Your task to perform on an android device: Show me popular videos on Youtube Image 0: 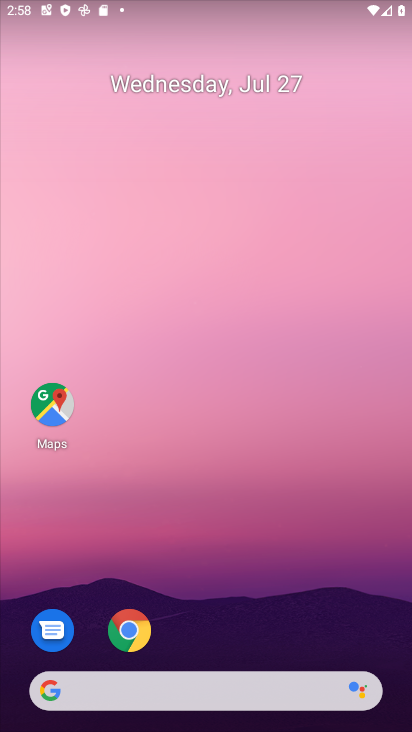
Step 0: drag from (395, 683) to (329, 38)
Your task to perform on an android device: Show me popular videos on Youtube Image 1: 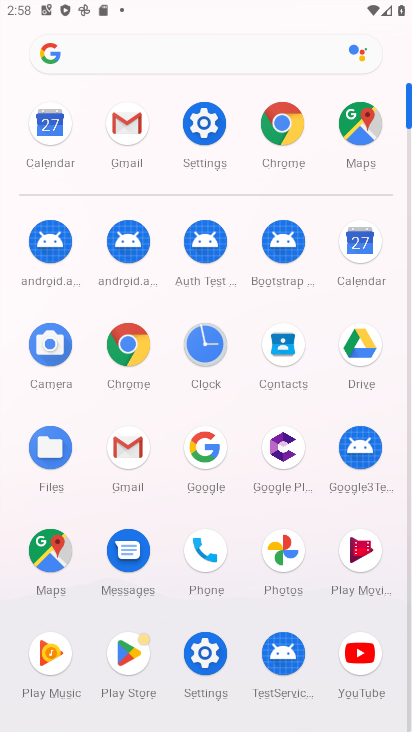
Step 1: click (344, 669)
Your task to perform on an android device: Show me popular videos on Youtube Image 2: 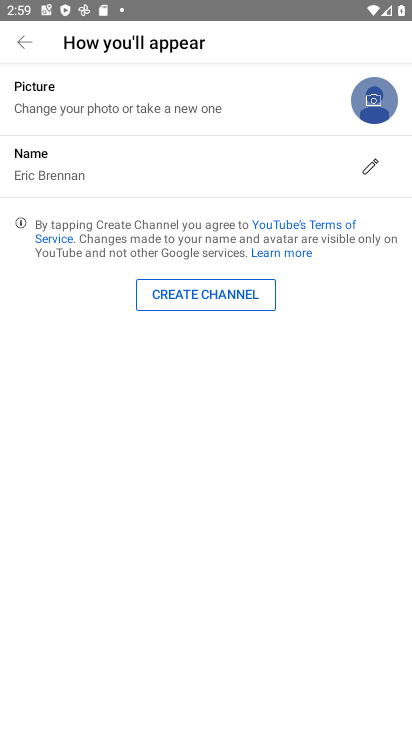
Step 2: press enter
Your task to perform on an android device: Show me popular videos on Youtube Image 3: 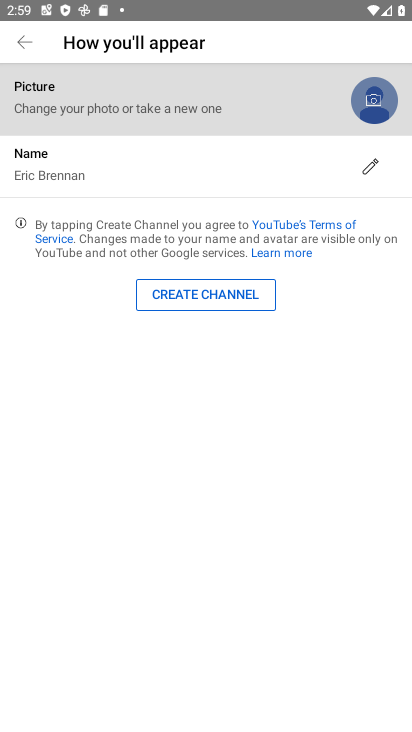
Step 3: press home button
Your task to perform on an android device: Show me popular videos on Youtube Image 4: 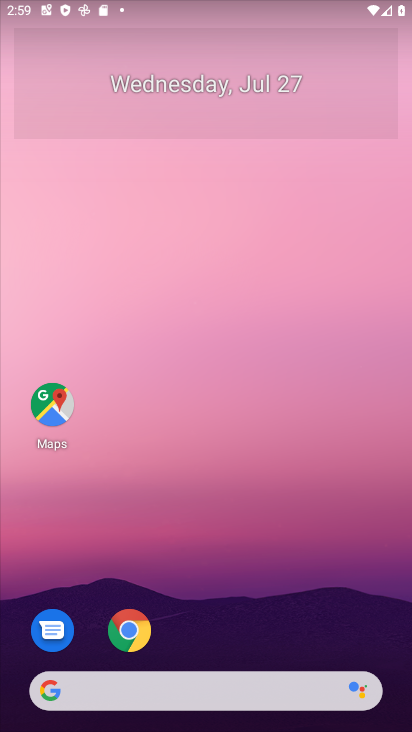
Step 4: drag from (391, 707) to (325, 107)
Your task to perform on an android device: Show me popular videos on Youtube Image 5: 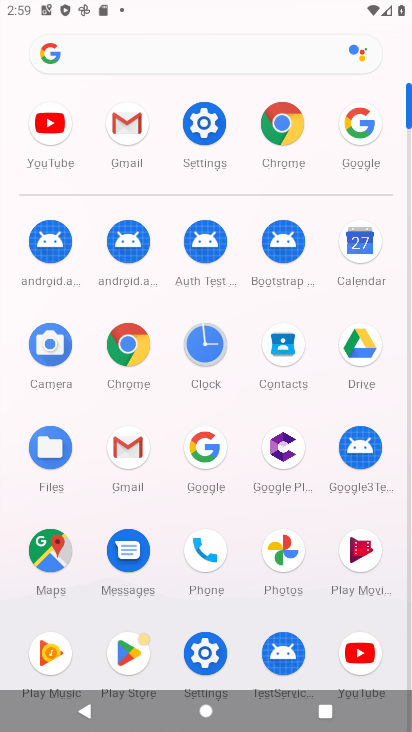
Step 5: click (369, 641)
Your task to perform on an android device: Show me popular videos on Youtube Image 6: 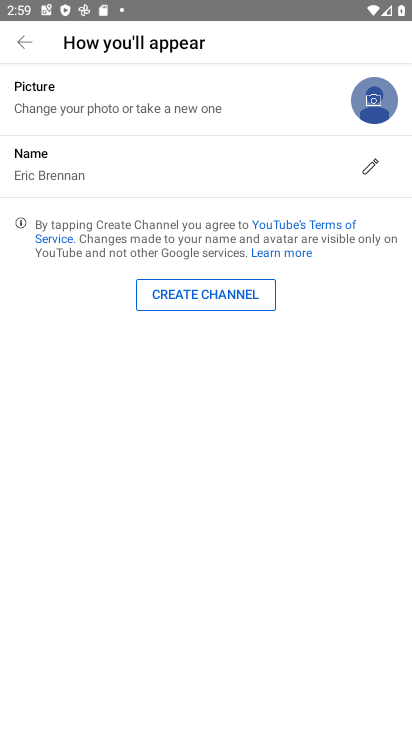
Step 6: task complete